Your task to perform on an android device: add a contact in the contacts app Image 0: 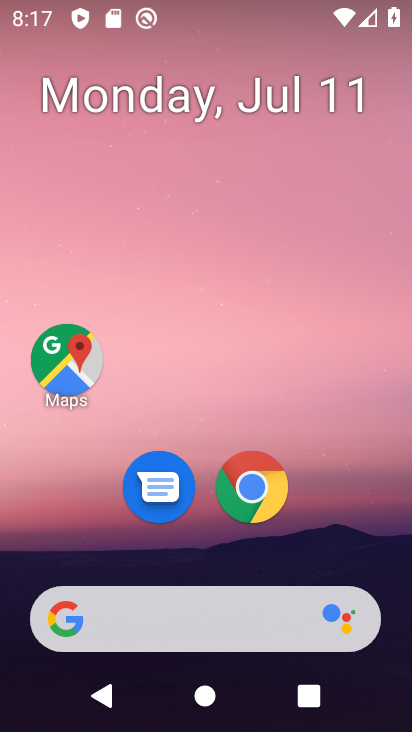
Step 0: drag from (171, 558) to (288, 4)
Your task to perform on an android device: add a contact in the contacts app Image 1: 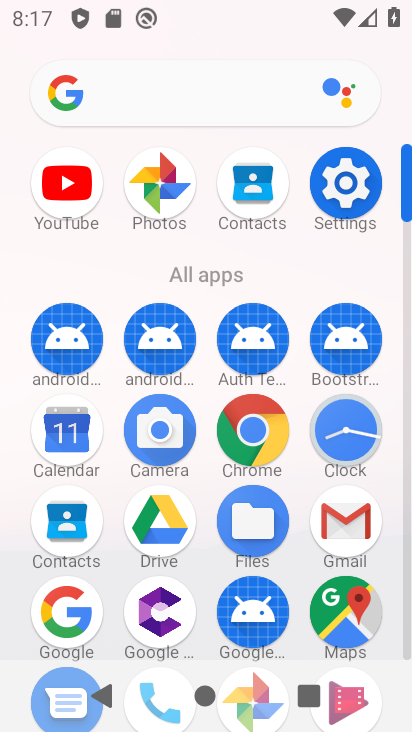
Step 1: click (259, 180)
Your task to perform on an android device: add a contact in the contacts app Image 2: 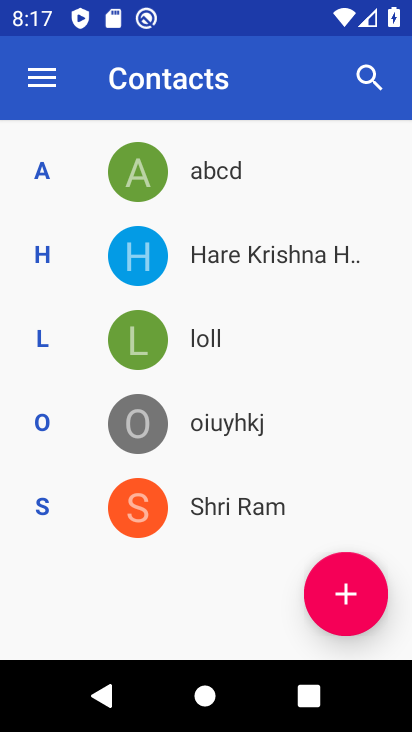
Step 2: click (337, 606)
Your task to perform on an android device: add a contact in the contacts app Image 3: 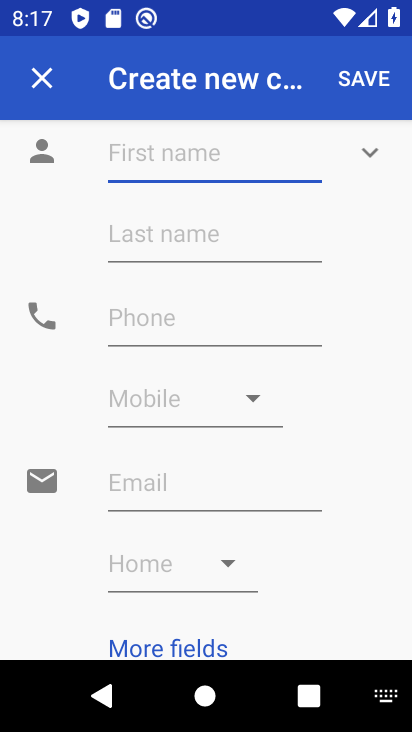
Step 3: click (155, 149)
Your task to perform on an android device: add a contact in the contacts app Image 4: 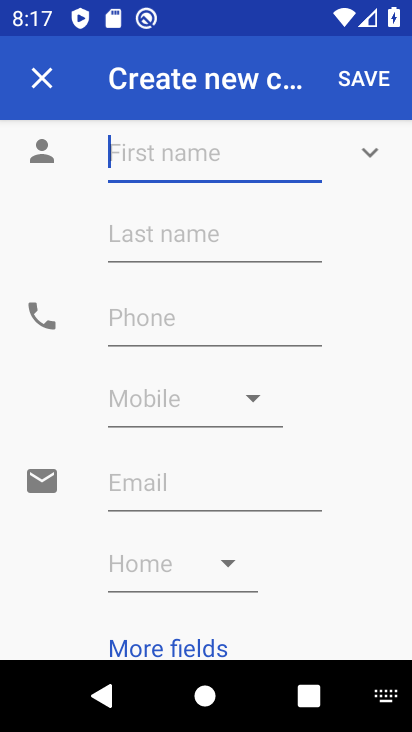
Step 4: type "hbhb"
Your task to perform on an android device: add a contact in the contacts app Image 5: 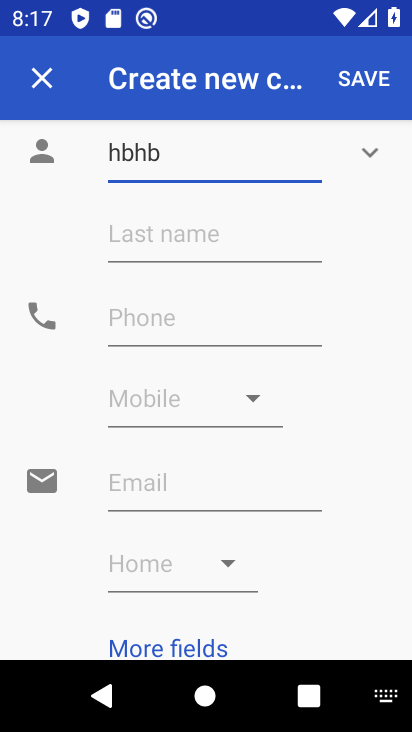
Step 5: click (139, 313)
Your task to perform on an android device: add a contact in the contacts app Image 6: 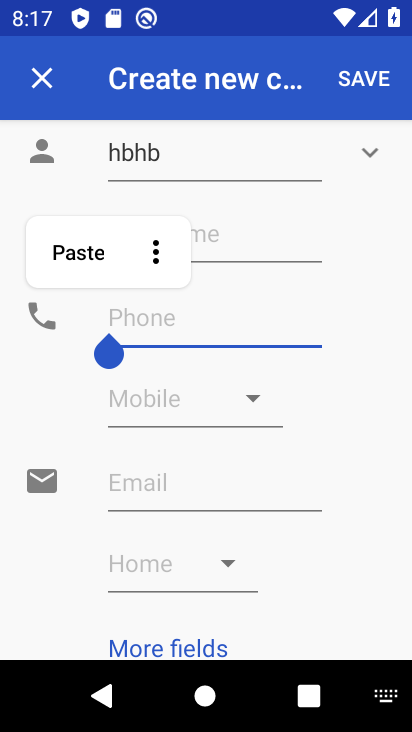
Step 6: type "79779"
Your task to perform on an android device: add a contact in the contacts app Image 7: 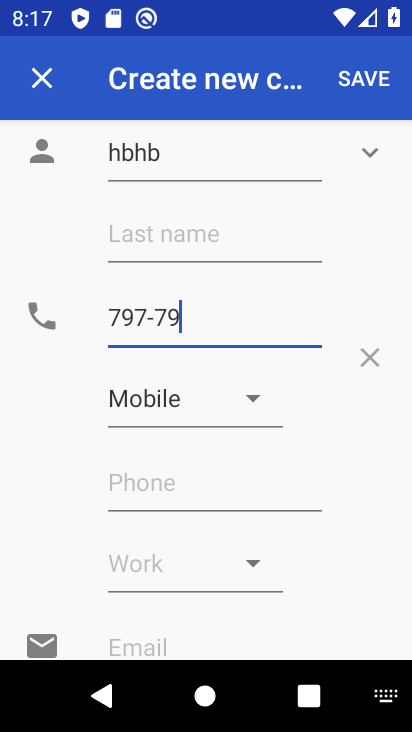
Step 7: click (375, 77)
Your task to perform on an android device: add a contact in the contacts app Image 8: 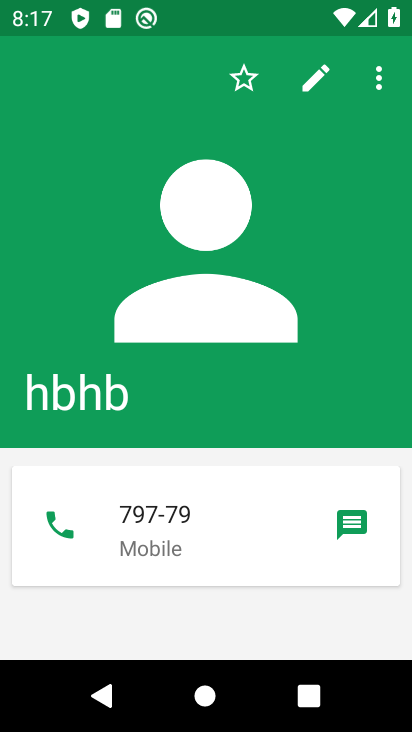
Step 8: task complete